Your task to perform on an android device: open chrome and create a bookmark for the current page Image 0: 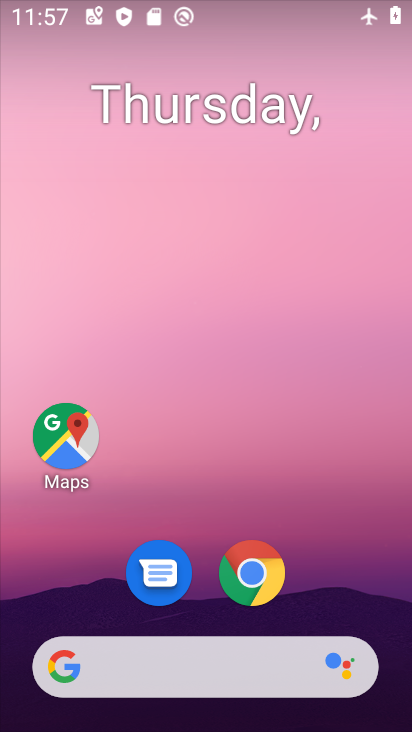
Step 0: click (249, 575)
Your task to perform on an android device: open chrome and create a bookmark for the current page Image 1: 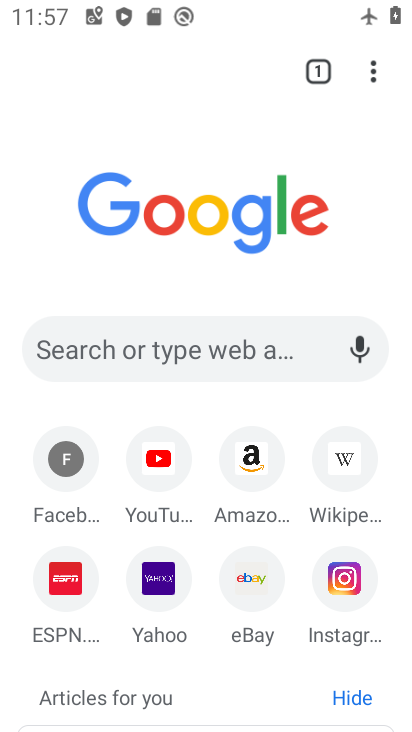
Step 1: click (363, 77)
Your task to perform on an android device: open chrome and create a bookmark for the current page Image 2: 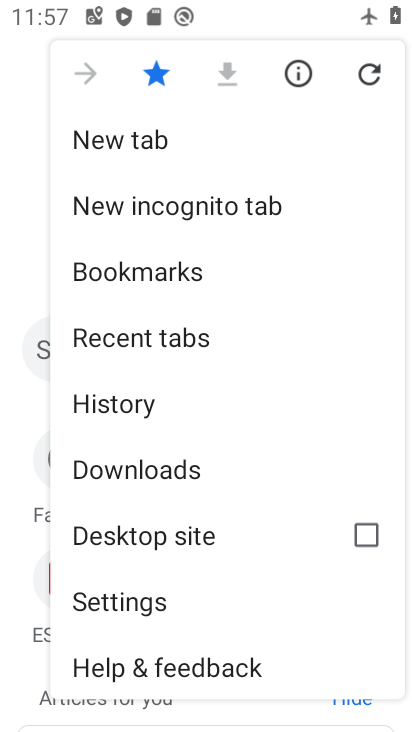
Step 2: click (147, 271)
Your task to perform on an android device: open chrome and create a bookmark for the current page Image 3: 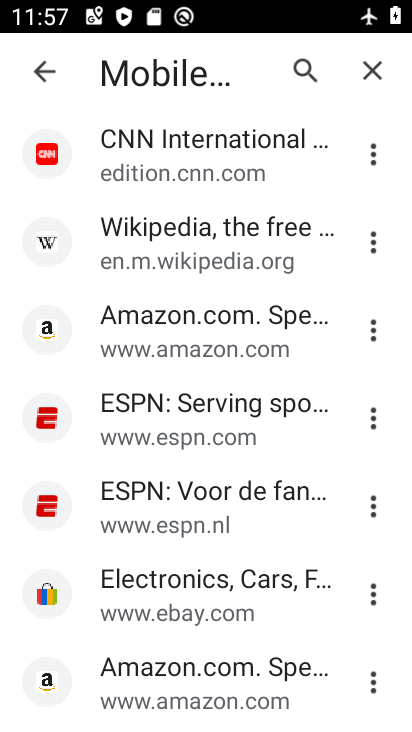
Step 3: press back button
Your task to perform on an android device: open chrome and create a bookmark for the current page Image 4: 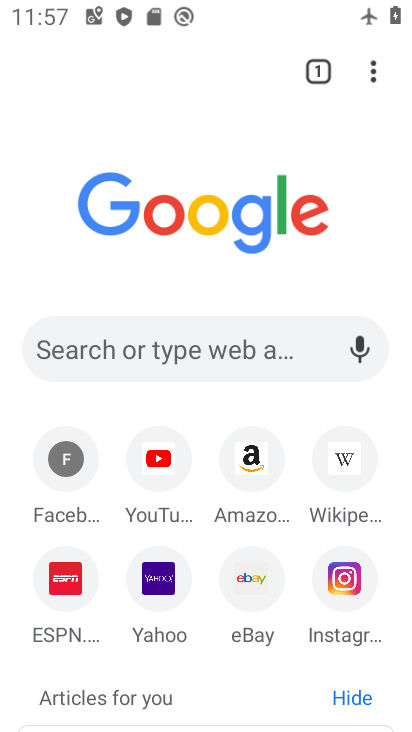
Step 4: click (366, 75)
Your task to perform on an android device: open chrome and create a bookmark for the current page Image 5: 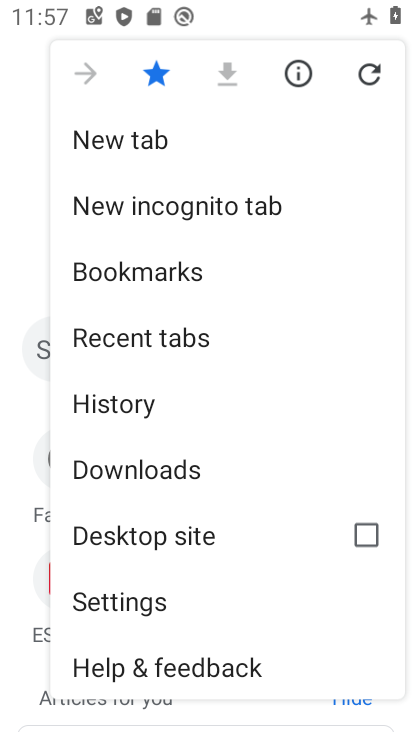
Step 5: task complete